Your task to perform on an android device: change notifications settings Image 0: 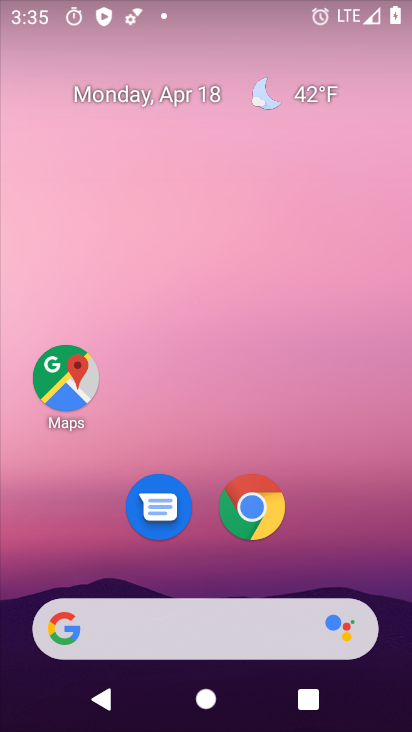
Step 0: drag from (379, 545) to (374, 130)
Your task to perform on an android device: change notifications settings Image 1: 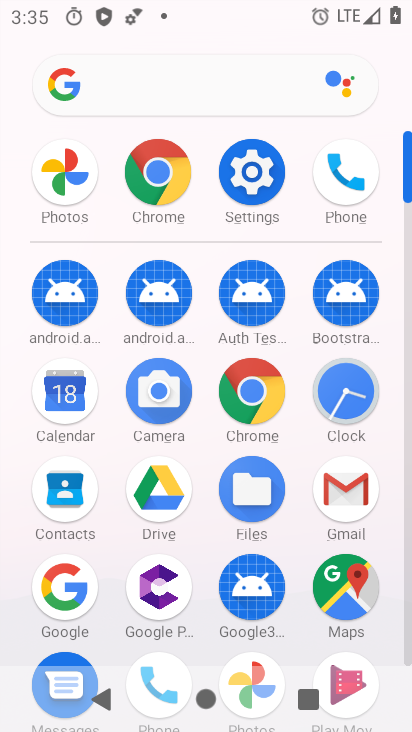
Step 1: click (250, 175)
Your task to perform on an android device: change notifications settings Image 2: 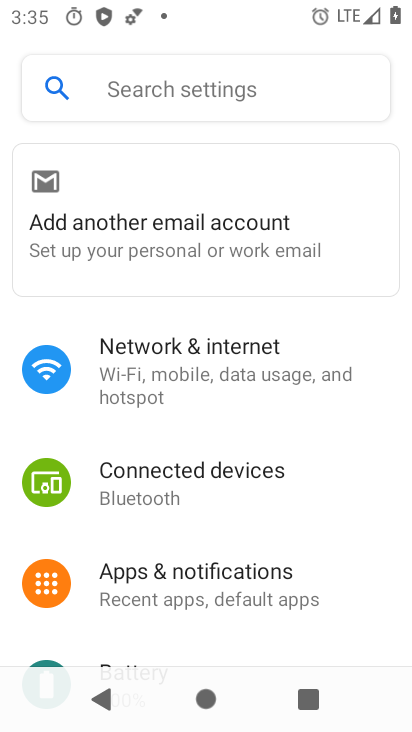
Step 2: drag from (350, 600) to (377, 361)
Your task to perform on an android device: change notifications settings Image 3: 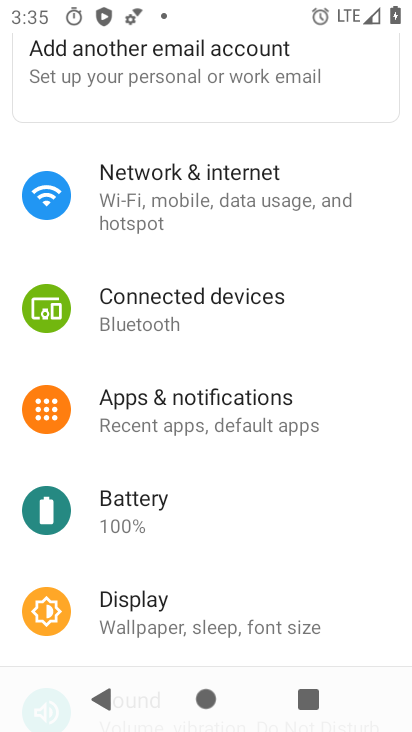
Step 3: click (252, 412)
Your task to perform on an android device: change notifications settings Image 4: 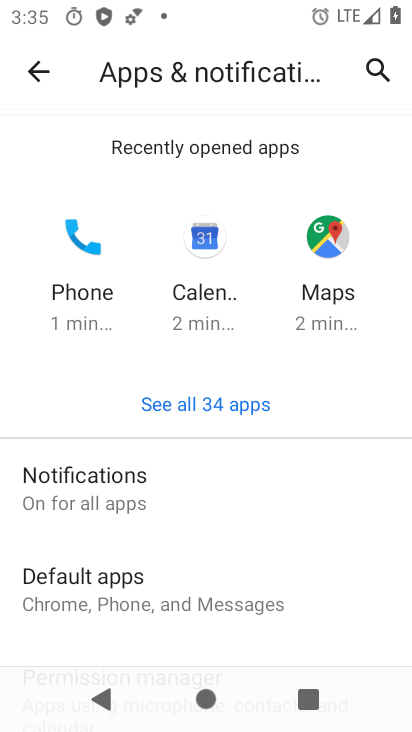
Step 4: click (75, 504)
Your task to perform on an android device: change notifications settings Image 5: 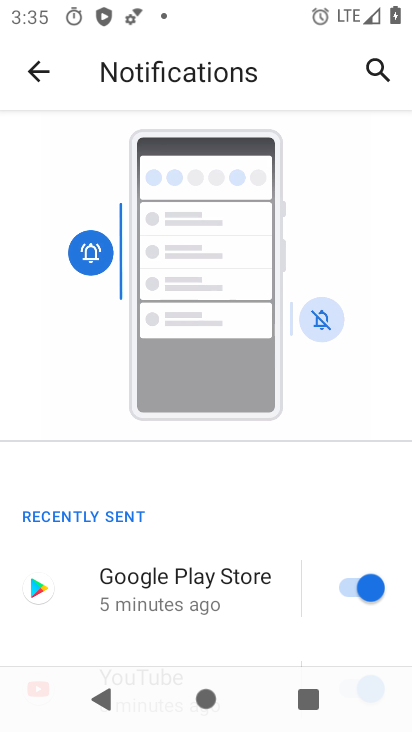
Step 5: drag from (268, 635) to (293, 377)
Your task to perform on an android device: change notifications settings Image 6: 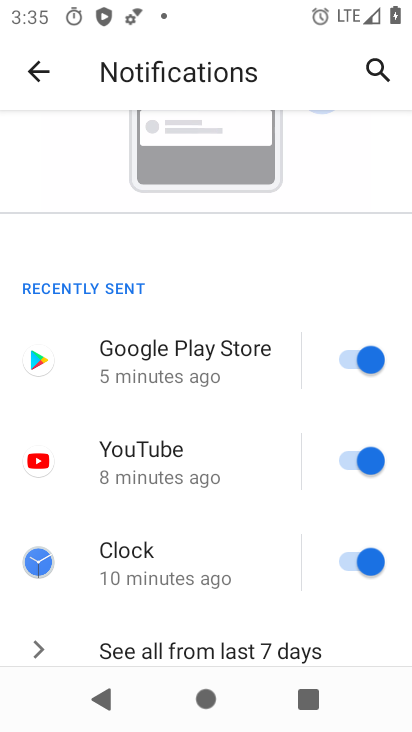
Step 6: click (368, 353)
Your task to perform on an android device: change notifications settings Image 7: 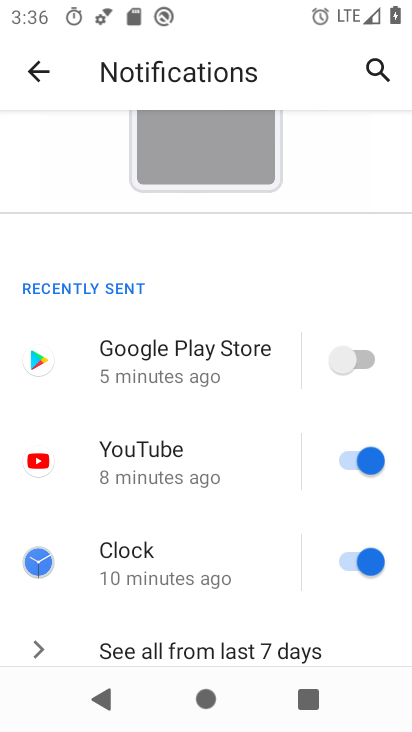
Step 7: task complete